Your task to perform on an android device: change the clock display to analog Image 0: 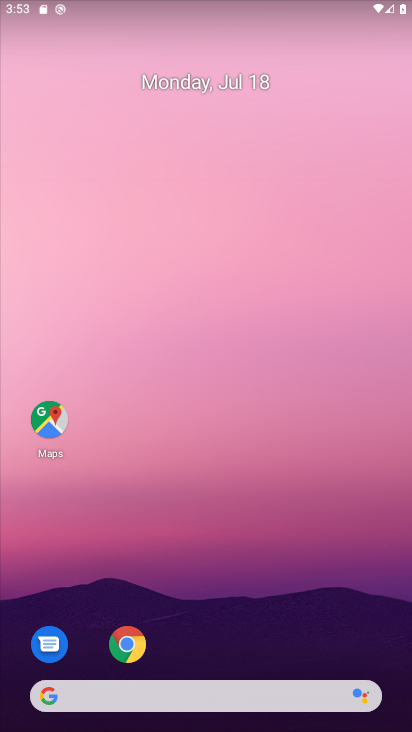
Step 0: task complete